Your task to perform on an android device: open sync settings in chrome Image 0: 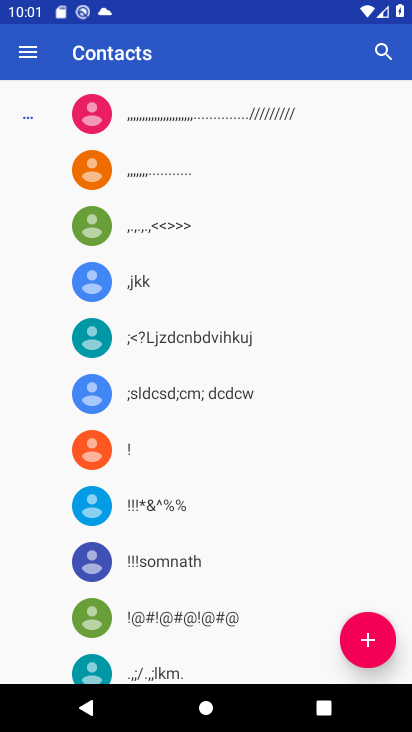
Step 0: press home button
Your task to perform on an android device: open sync settings in chrome Image 1: 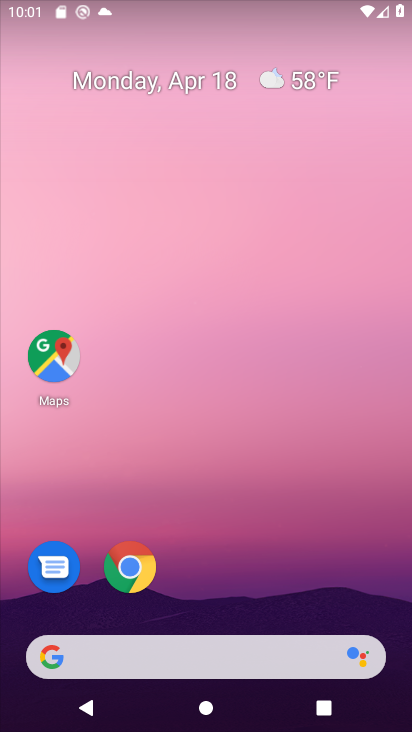
Step 1: drag from (202, 468) to (230, 46)
Your task to perform on an android device: open sync settings in chrome Image 2: 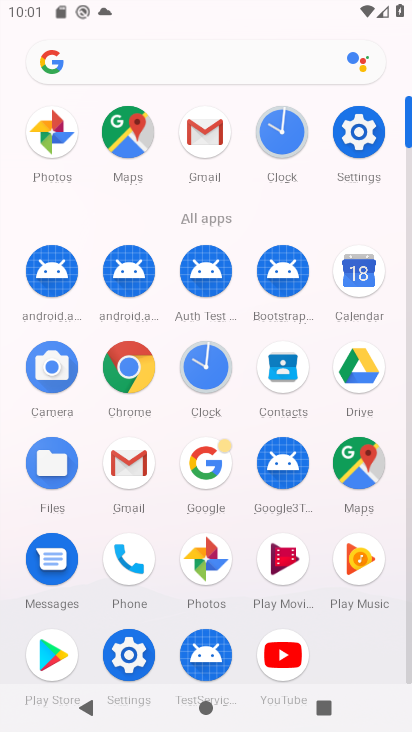
Step 2: click (125, 362)
Your task to perform on an android device: open sync settings in chrome Image 3: 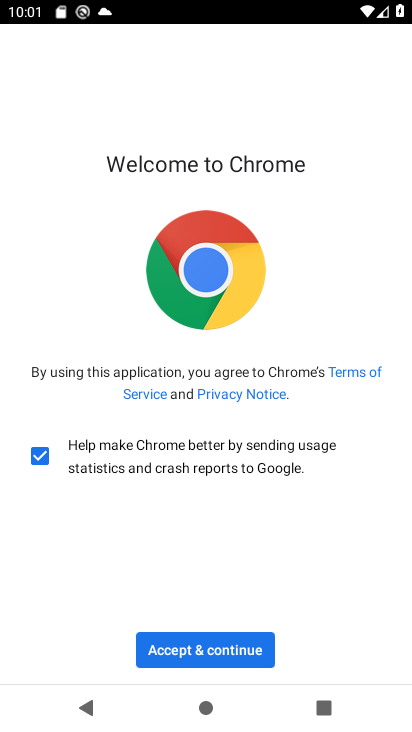
Step 3: click (212, 651)
Your task to perform on an android device: open sync settings in chrome Image 4: 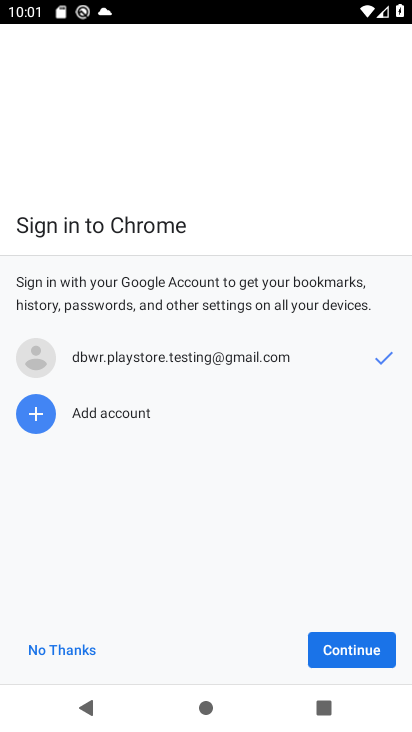
Step 4: click (54, 657)
Your task to perform on an android device: open sync settings in chrome Image 5: 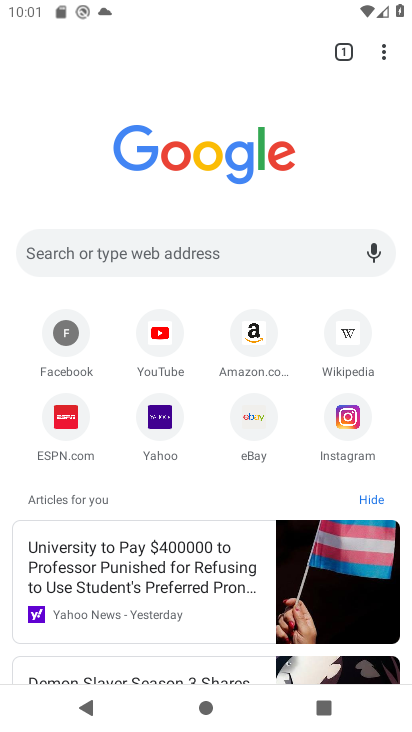
Step 5: drag from (381, 41) to (217, 429)
Your task to perform on an android device: open sync settings in chrome Image 6: 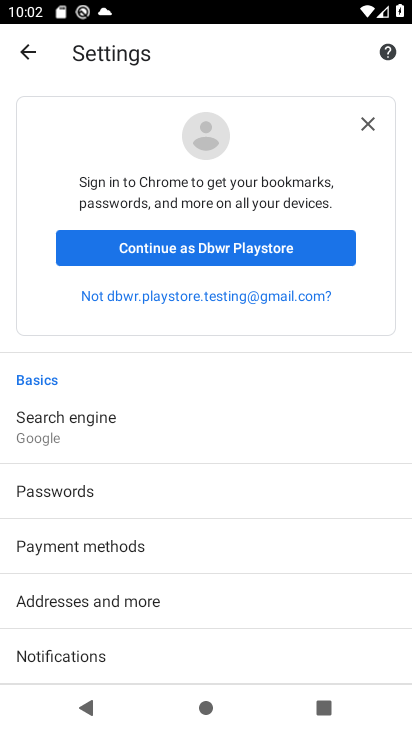
Step 6: drag from (164, 493) to (176, 0)
Your task to perform on an android device: open sync settings in chrome Image 7: 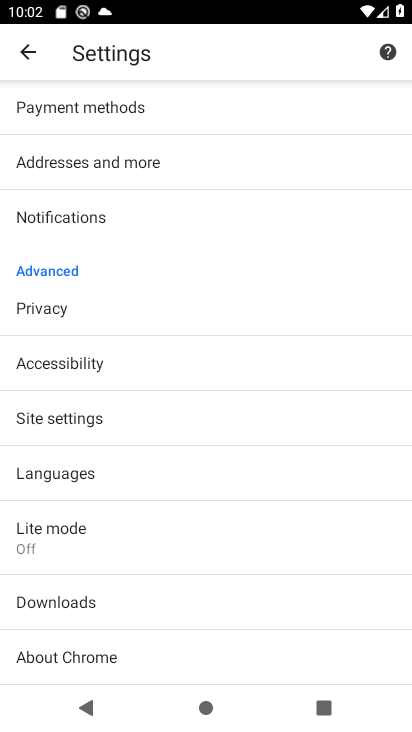
Step 7: click (75, 421)
Your task to perform on an android device: open sync settings in chrome Image 8: 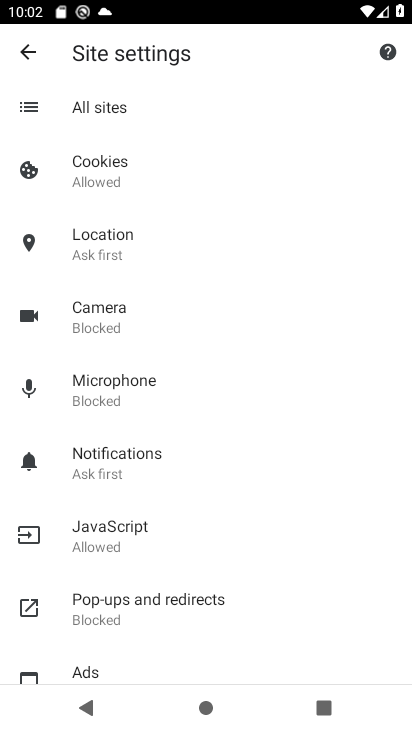
Step 8: drag from (160, 584) to (252, 115)
Your task to perform on an android device: open sync settings in chrome Image 9: 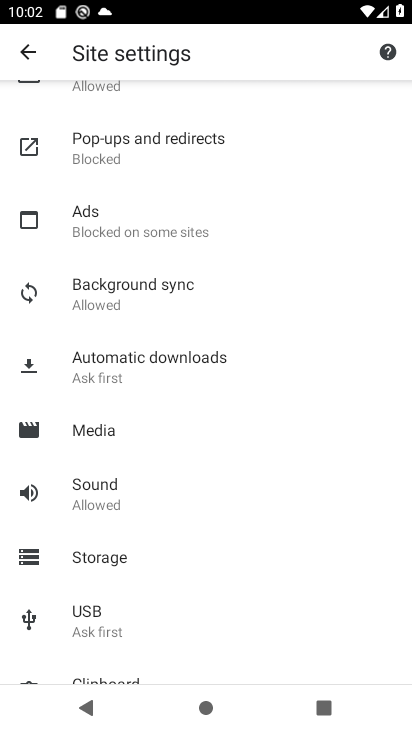
Step 9: click (186, 299)
Your task to perform on an android device: open sync settings in chrome Image 10: 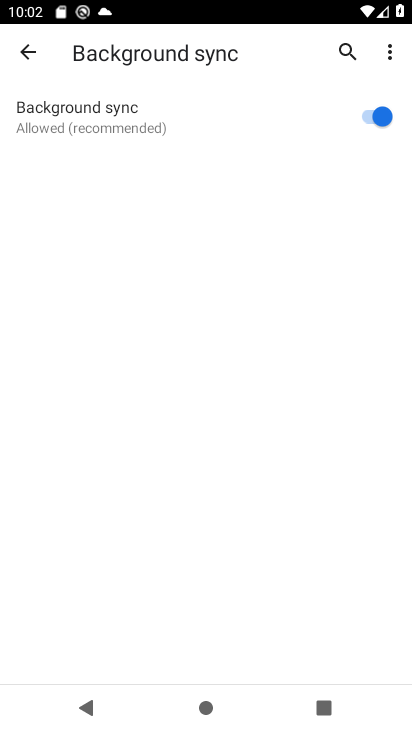
Step 10: task complete